Your task to perform on an android device: Check the news Image 0: 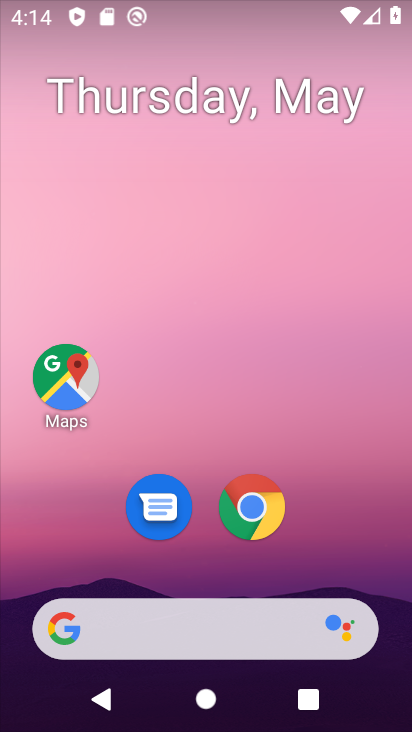
Step 0: drag from (357, 592) to (161, 4)
Your task to perform on an android device: Check the news Image 1: 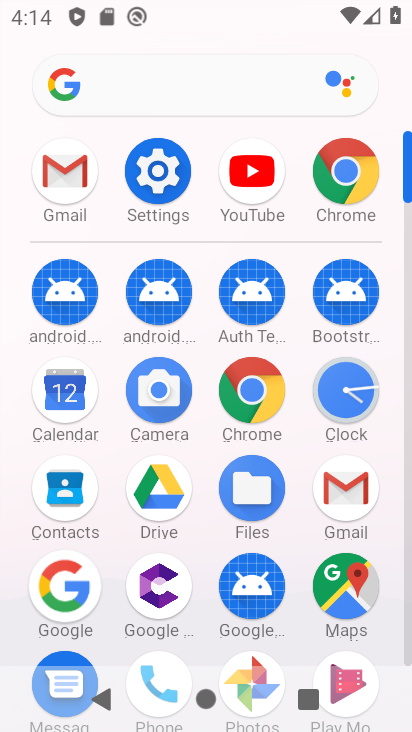
Step 1: press home button
Your task to perform on an android device: Check the news Image 2: 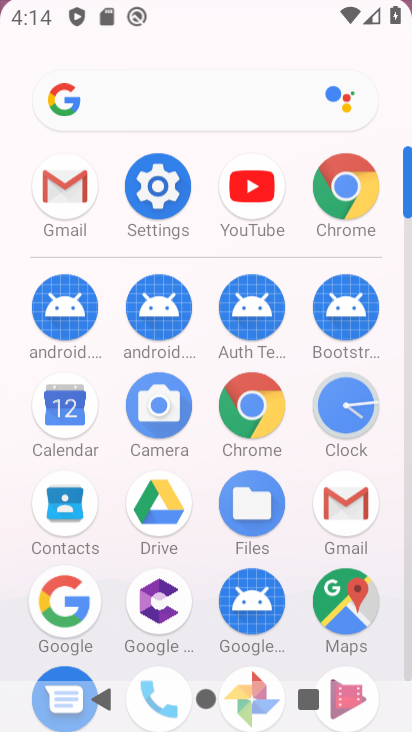
Step 2: press home button
Your task to perform on an android device: Check the news Image 3: 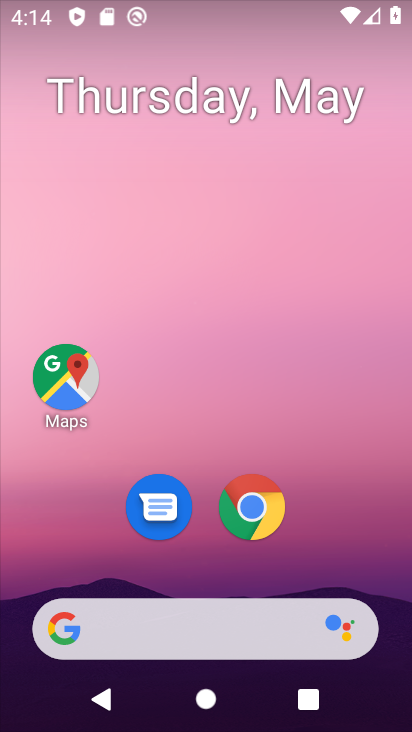
Step 3: press home button
Your task to perform on an android device: Check the news Image 4: 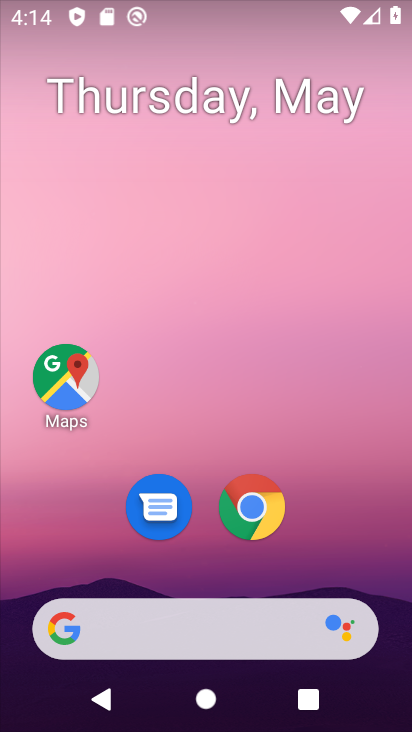
Step 4: drag from (1, 236) to (391, 372)
Your task to perform on an android device: Check the news Image 5: 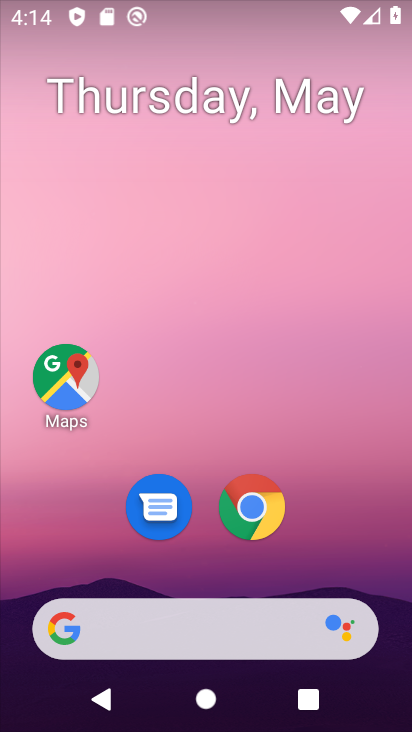
Step 5: drag from (65, 309) to (410, 334)
Your task to perform on an android device: Check the news Image 6: 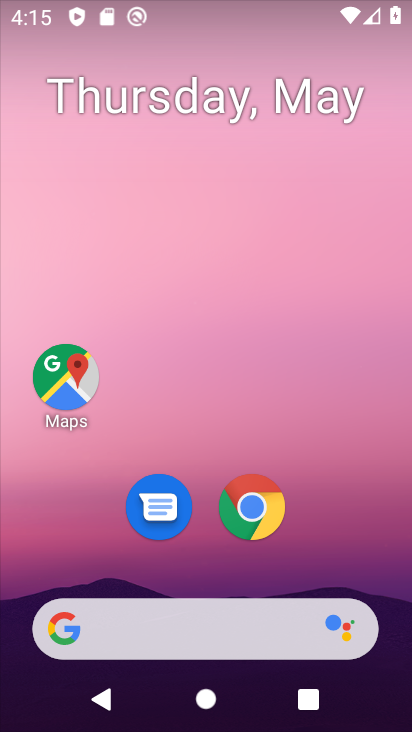
Step 6: drag from (147, 241) to (407, 353)
Your task to perform on an android device: Check the news Image 7: 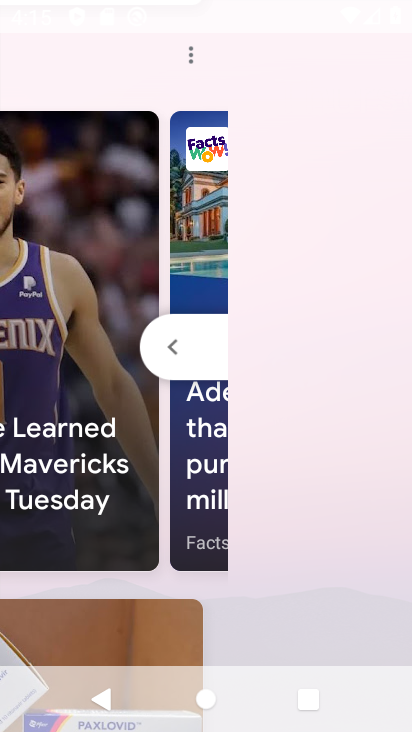
Step 7: drag from (43, 315) to (294, 346)
Your task to perform on an android device: Check the news Image 8: 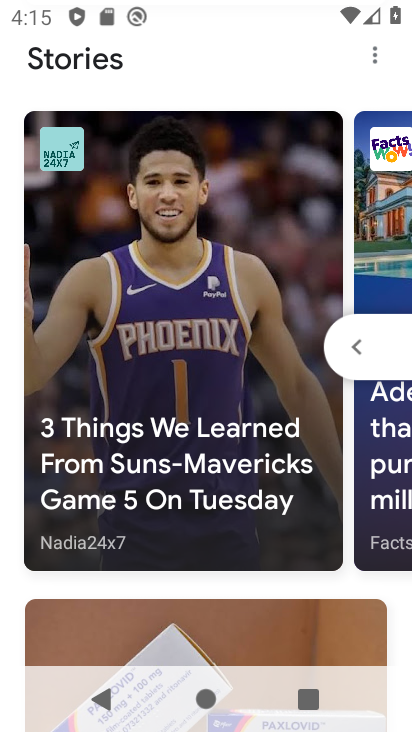
Step 8: drag from (225, 510) to (145, 18)
Your task to perform on an android device: Check the news Image 9: 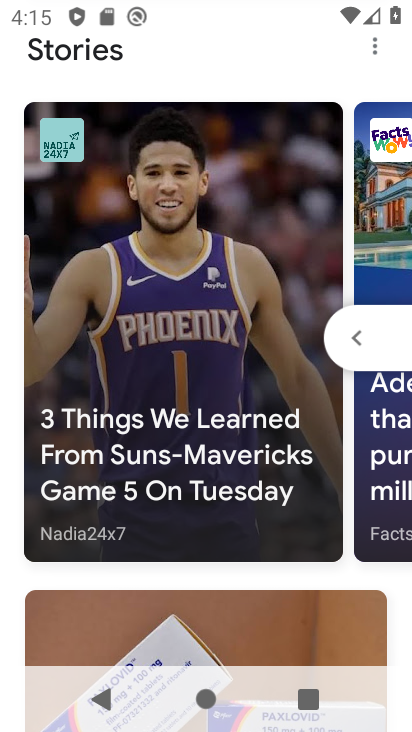
Step 9: drag from (278, 307) to (278, 0)
Your task to perform on an android device: Check the news Image 10: 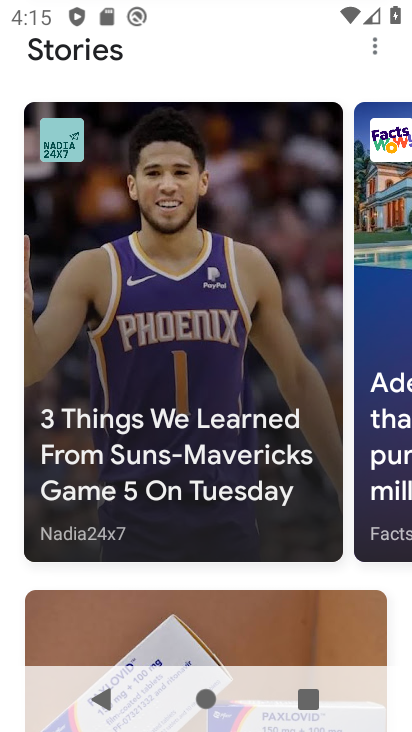
Step 10: drag from (194, 380) to (194, 9)
Your task to perform on an android device: Check the news Image 11: 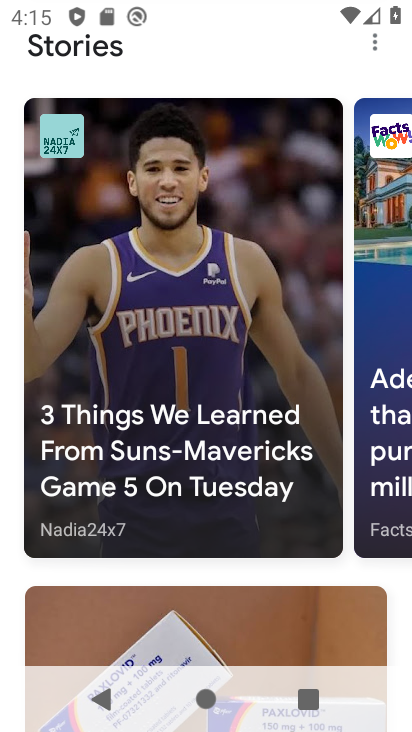
Step 11: drag from (226, 350) to (173, 19)
Your task to perform on an android device: Check the news Image 12: 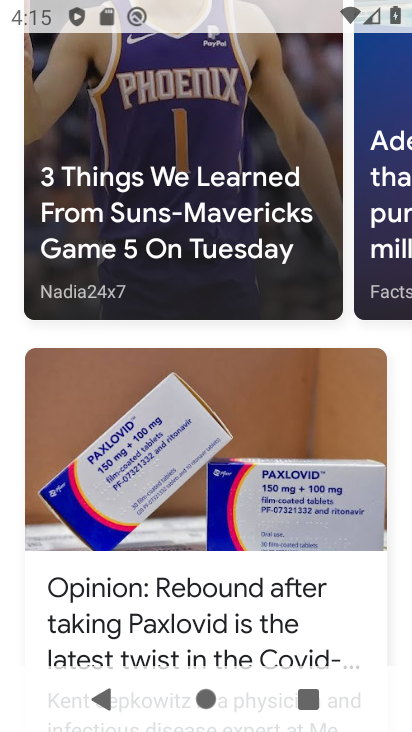
Step 12: drag from (249, 377) to (169, 17)
Your task to perform on an android device: Check the news Image 13: 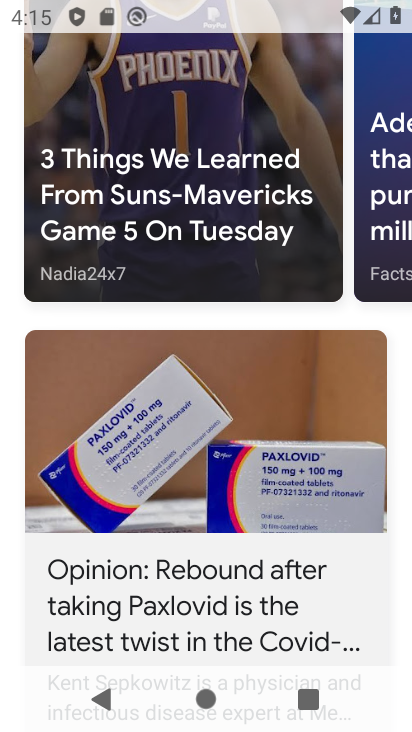
Step 13: drag from (211, 245) to (165, 11)
Your task to perform on an android device: Check the news Image 14: 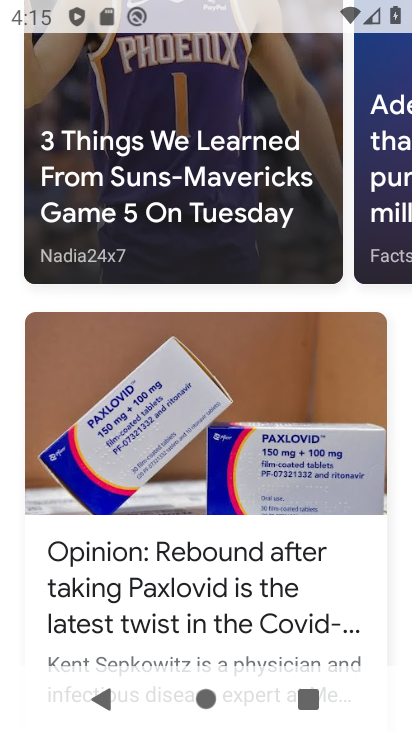
Step 14: drag from (237, 292) to (181, 47)
Your task to perform on an android device: Check the news Image 15: 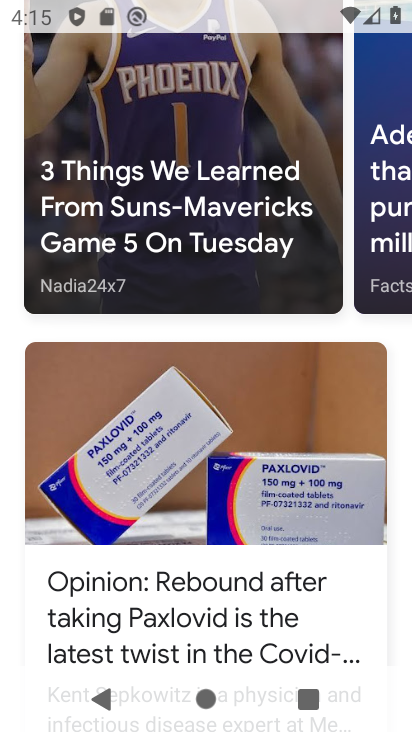
Step 15: drag from (223, 323) to (166, 36)
Your task to perform on an android device: Check the news Image 16: 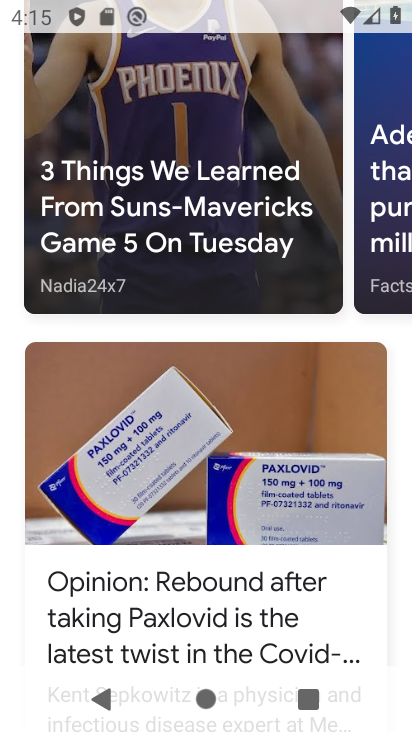
Step 16: drag from (174, 394) to (96, 42)
Your task to perform on an android device: Check the news Image 17: 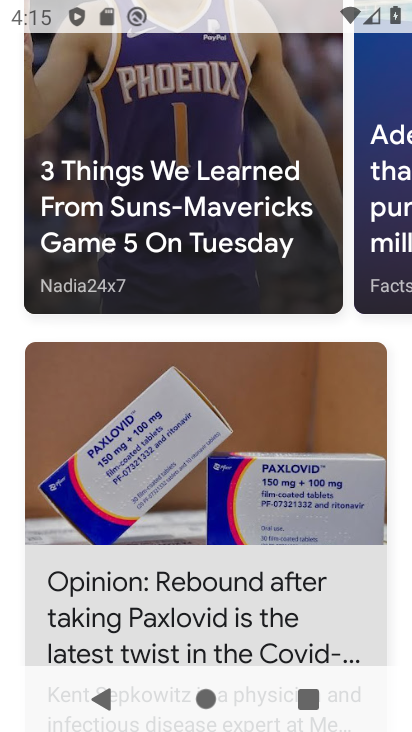
Step 17: drag from (149, 456) to (87, 27)
Your task to perform on an android device: Check the news Image 18: 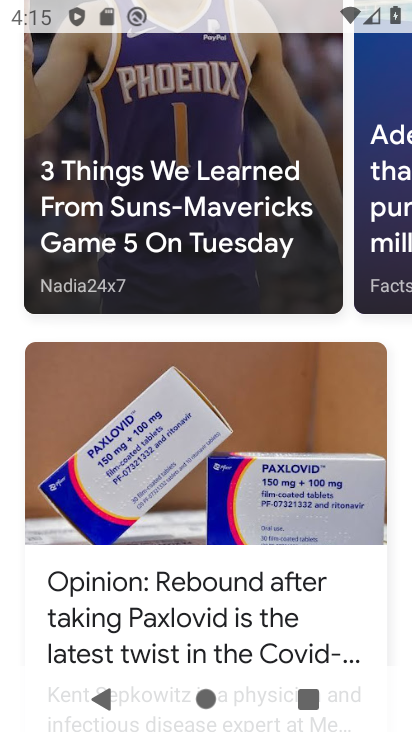
Step 18: drag from (85, 353) to (110, 10)
Your task to perform on an android device: Check the news Image 19: 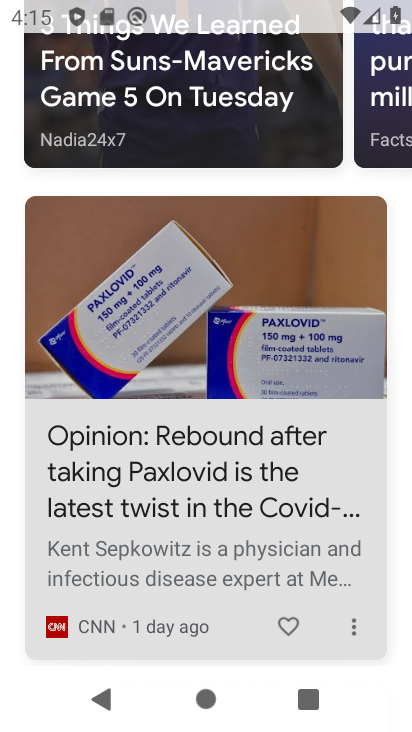
Step 19: drag from (189, 371) to (122, 3)
Your task to perform on an android device: Check the news Image 20: 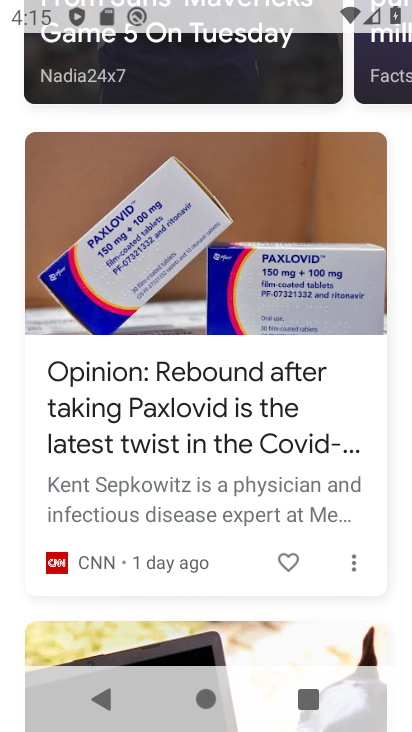
Step 20: drag from (140, 204) to (157, 65)
Your task to perform on an android device: Check the news Image 21: 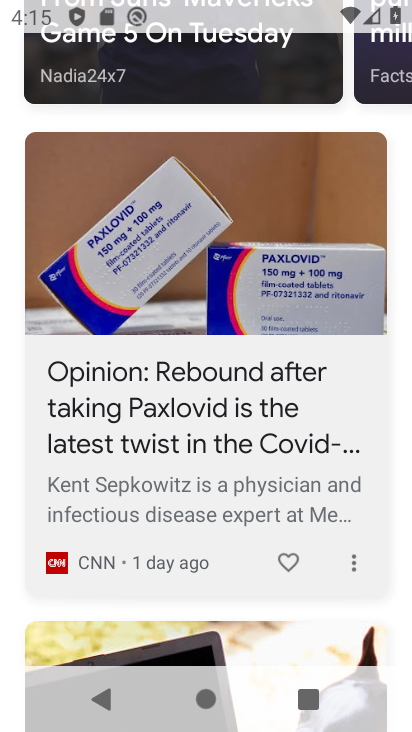
Step 21: drag from (189, 494) to (171, 85)
Your task to perform on an android device: Check the news Image 22: 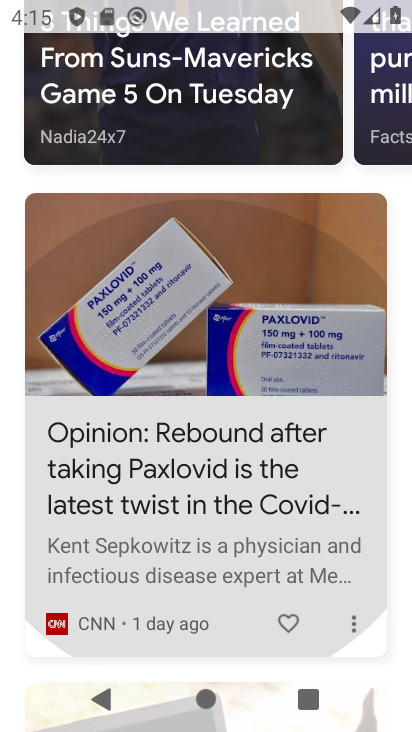
Step 22: click (239, 246)
Your task to perform on an android device: Check the news Image 23: 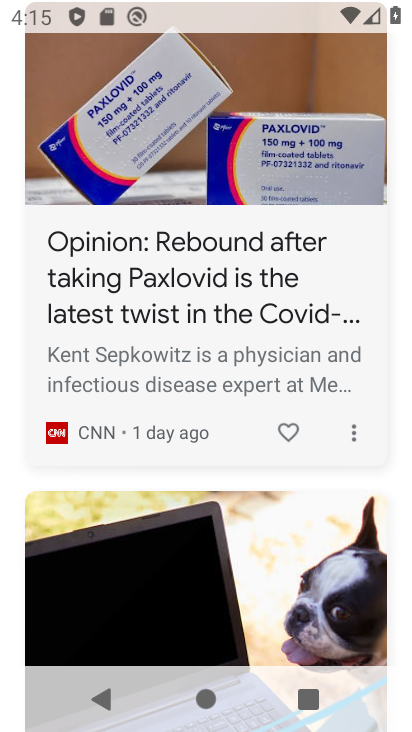
Step 23: task complete